Your task to perform on an android device: set an alarm Image 0: 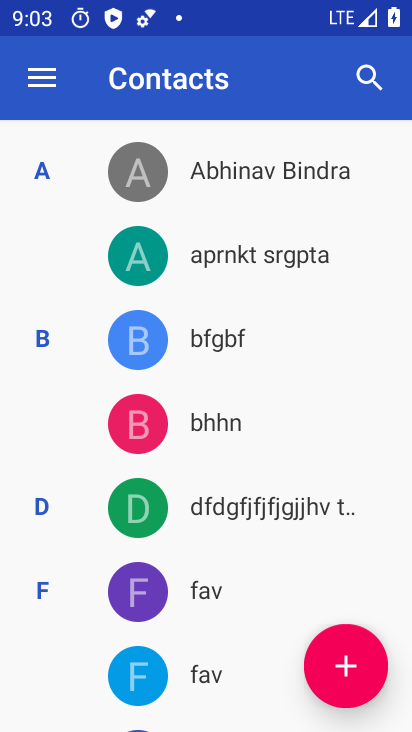
Step 0: press home button
Your task to perform on an android device: set an alarm Image 1: 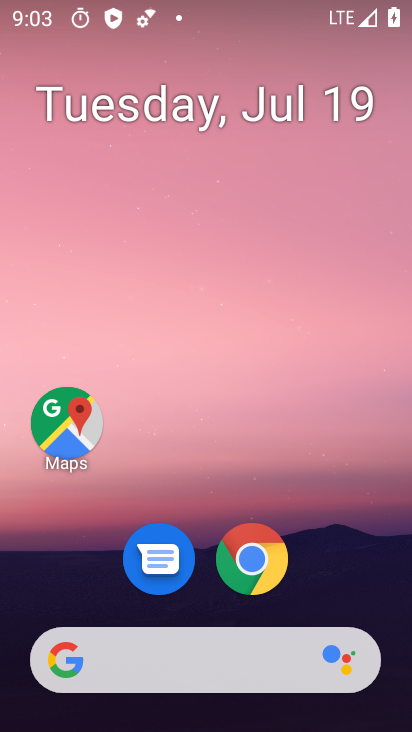
Step 1: drag from (387, 610) to (361, 207)
Your task to perform on an android device: set an alarm Image 2: 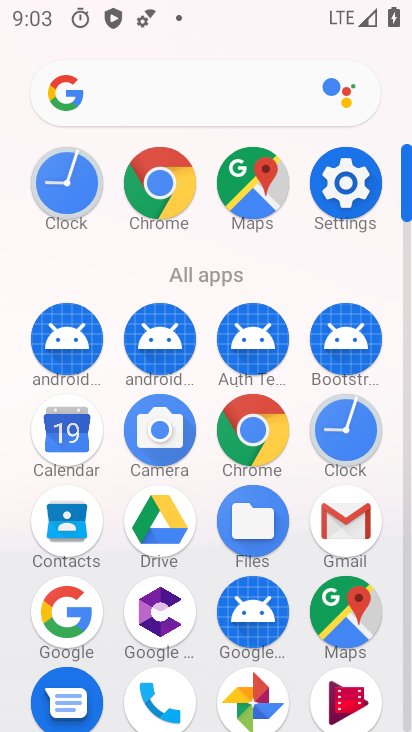
Step 2: click (354, 438)
Your task to perform on an android device: set an alarm Image 3: 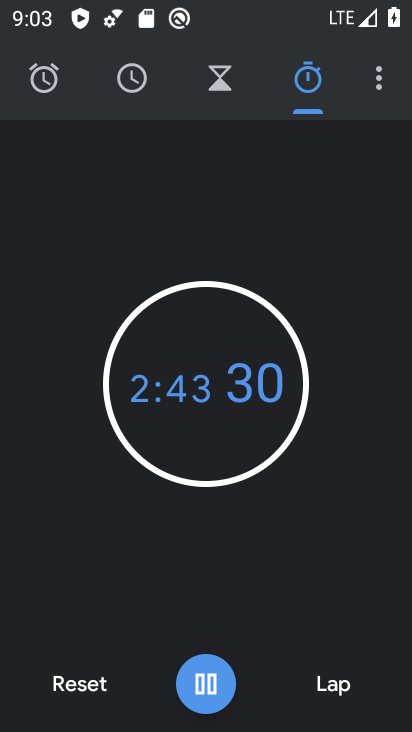
Step 3: click (49, 98)
Your task to perform on an android device: set an alarm Image 4: 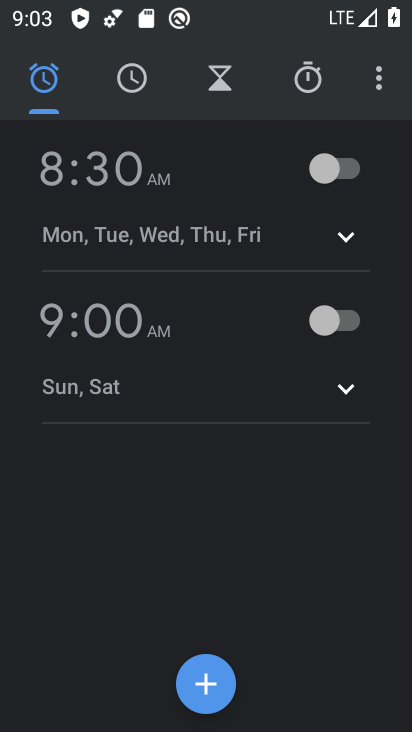
Step 4: click (218, 683)
Your task to perform on an android device: set an alarm Image 5: 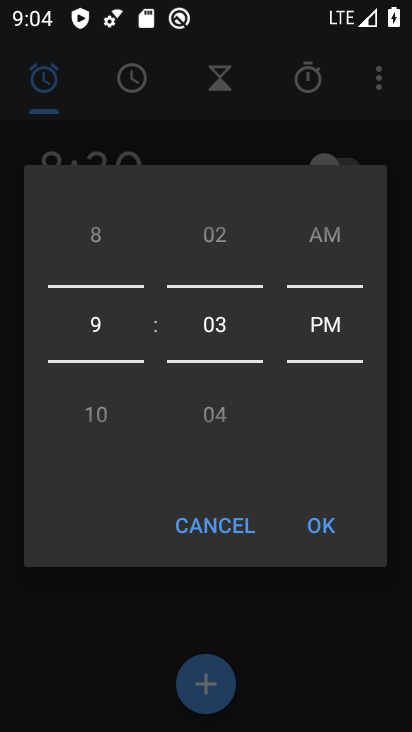
Step 5: click (309, 533)
Your task to perform on an android device: set an alarm Image 6: 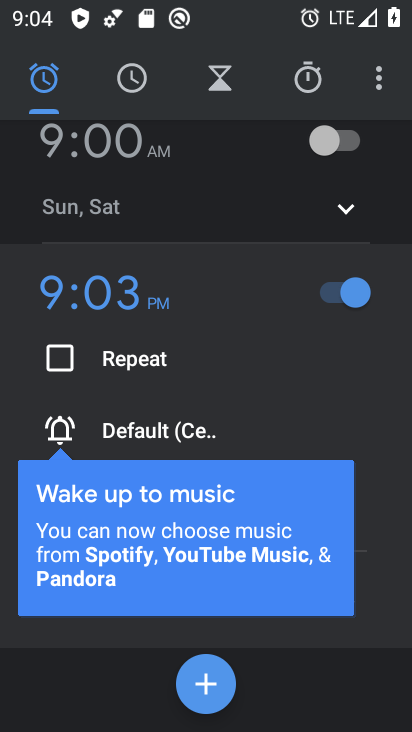
Step 6: task complete